Your task to perform on an android device: delete a single message in the gmail app Image 0: 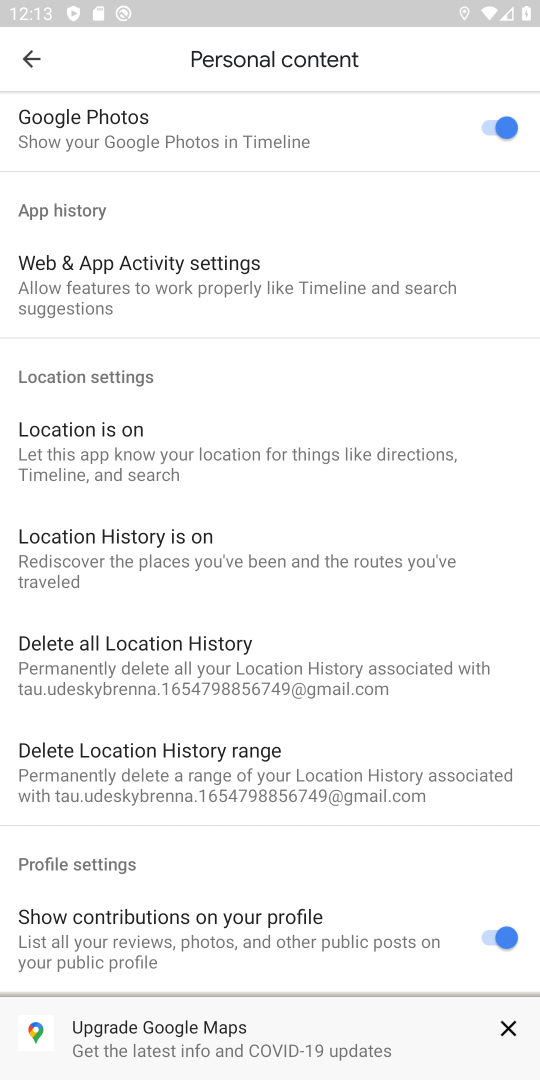
Step 0: press home button
Your task to perform on an android device: delete a single message in the gmail app Image 1: 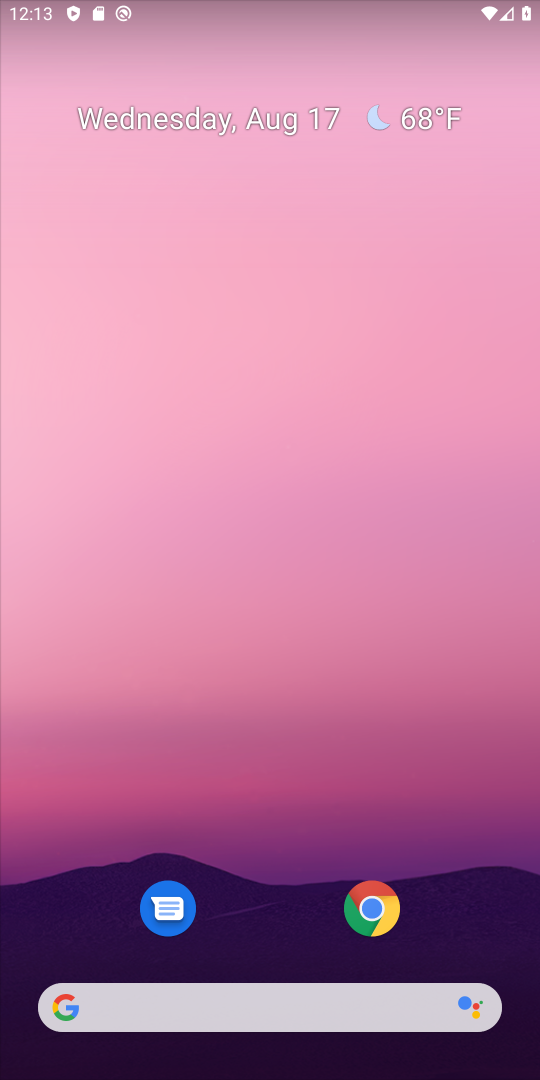
Step 1: drag from (234, 454) to (234, 398)
Your task to perform on an android device: delete a single message in the gmail app Image 2: 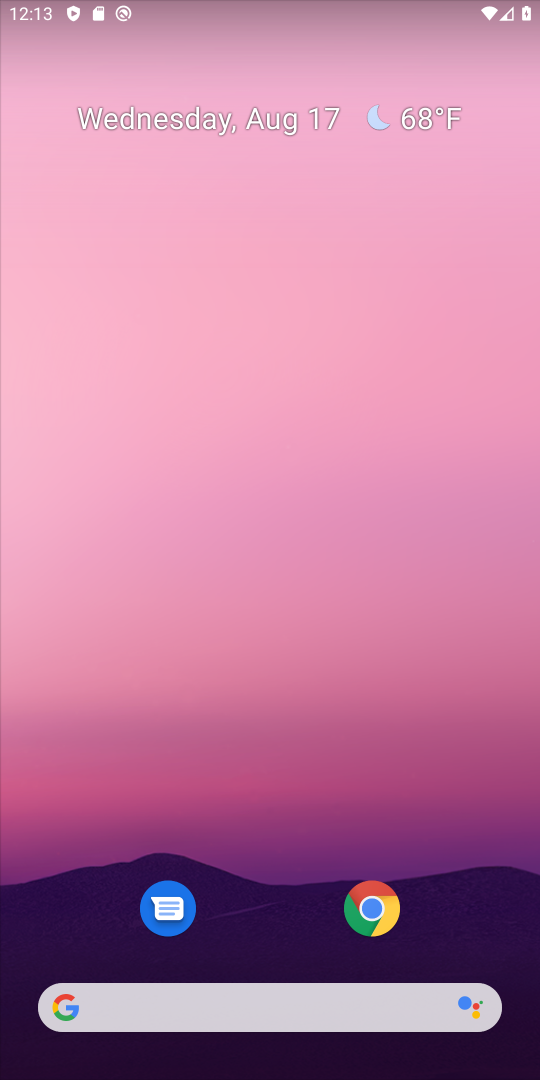
Step 2: drag from (269, 954) to (243, 312)
Your task to perform on an android device: delete a single message in the gmail app Image 3: 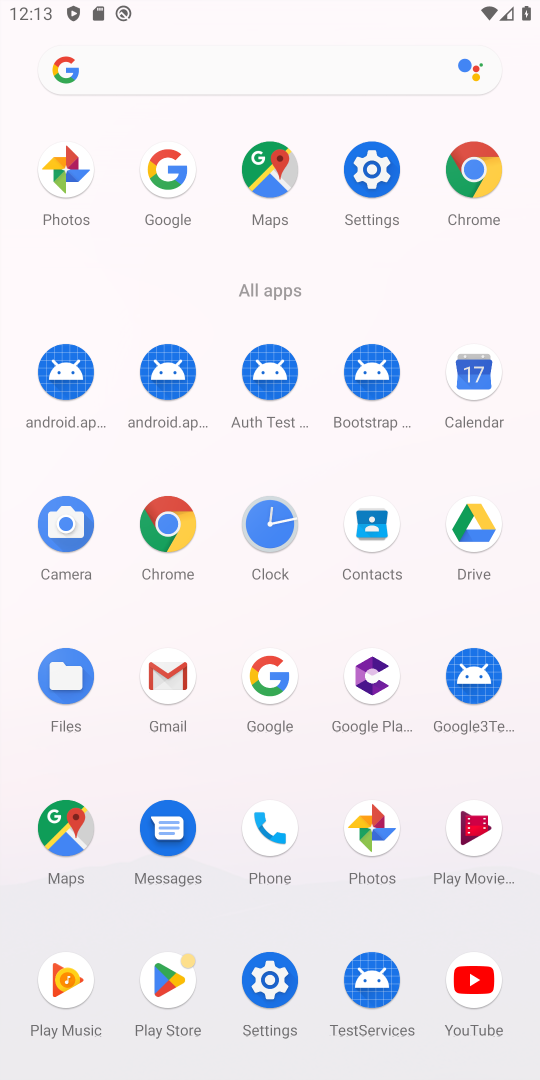
Step 3: click (170, 678)
Your task to perform on an android device: delete a single message in the gmail app Image 4: 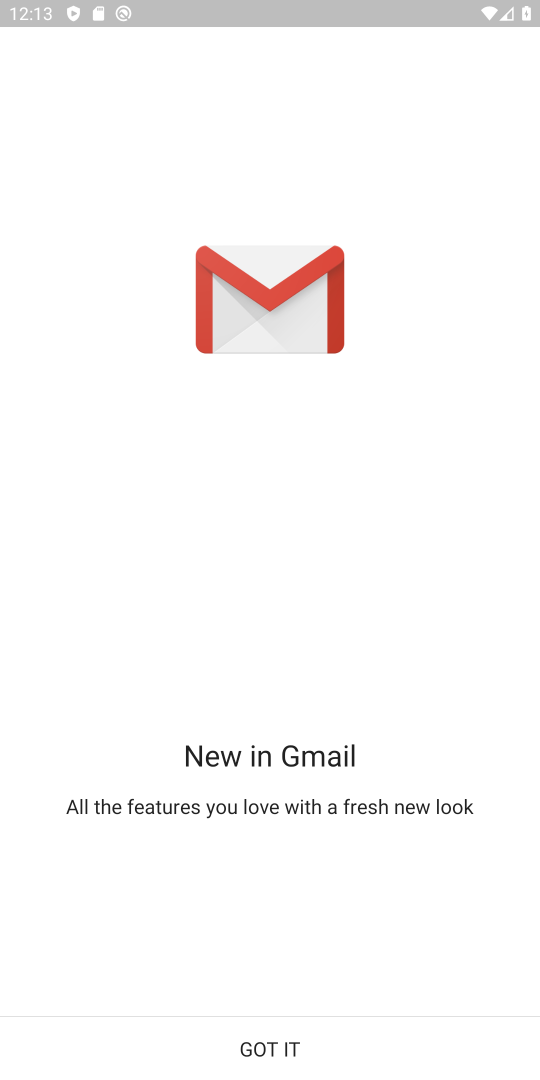
Step 4: click (269, 1026)
Your task to perform on an android device: delete a single message in the gmail app Image 5: 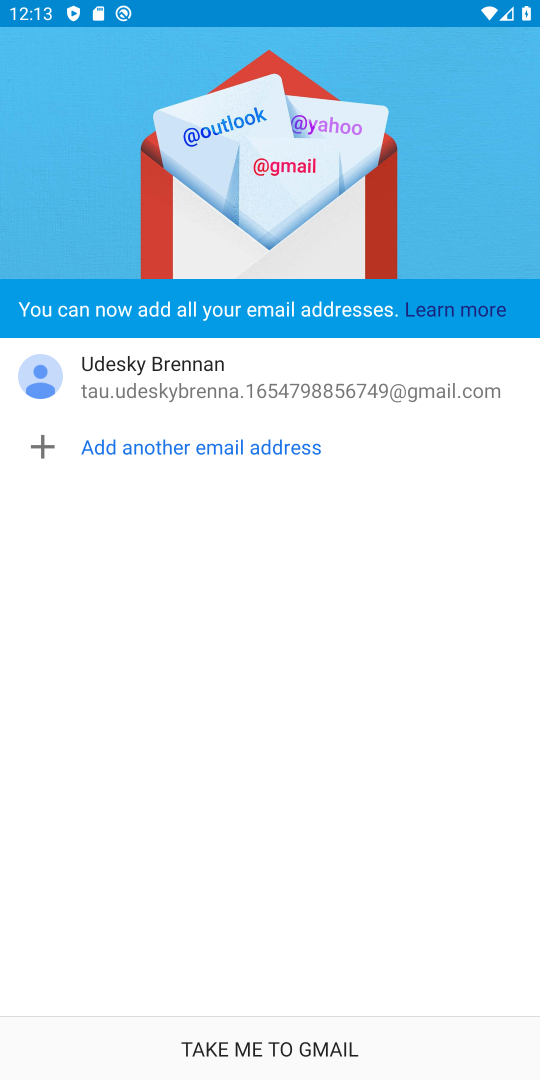
Step 5: click (225, 379)
Your task to perform on an android device: delete a single message in the gmail app Image 6: 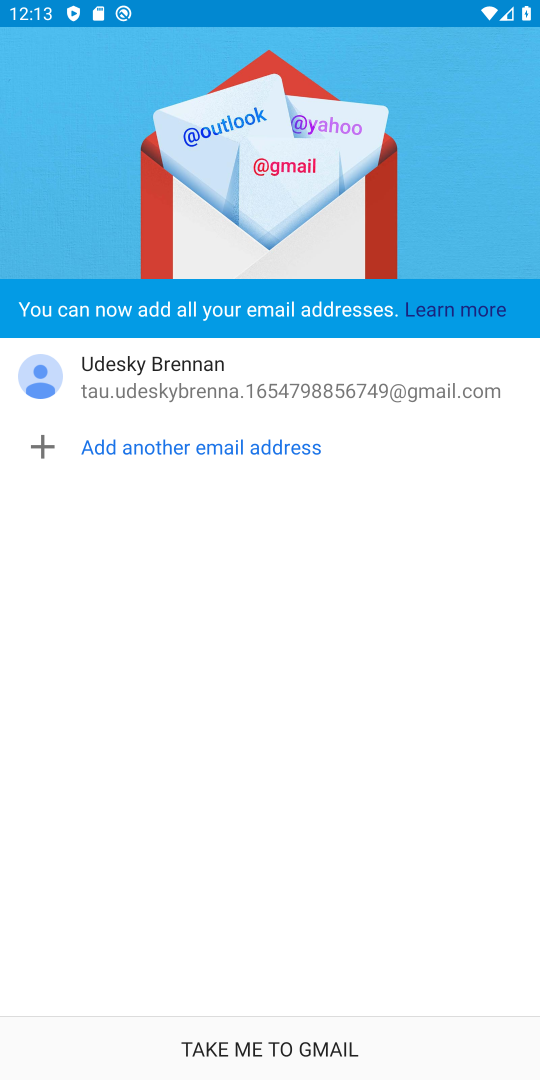
Step 6: click (348, 1031)
Your task to perform on an android device: delete a single message in the gmail app Image 7: 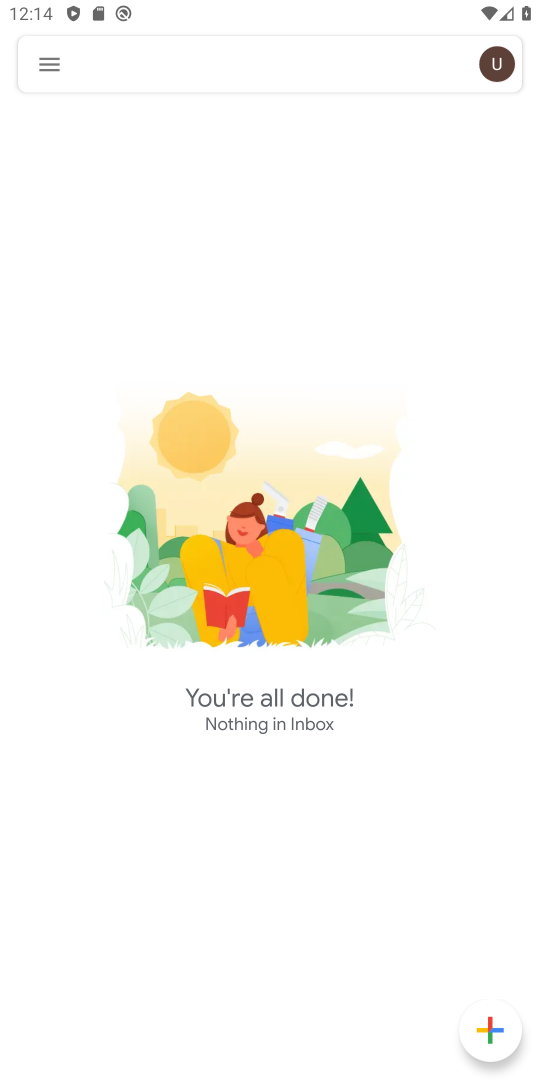
Step 7: click (44, 79)
Your task to perform on an android device: delete a single message in the gmail app Image 8: 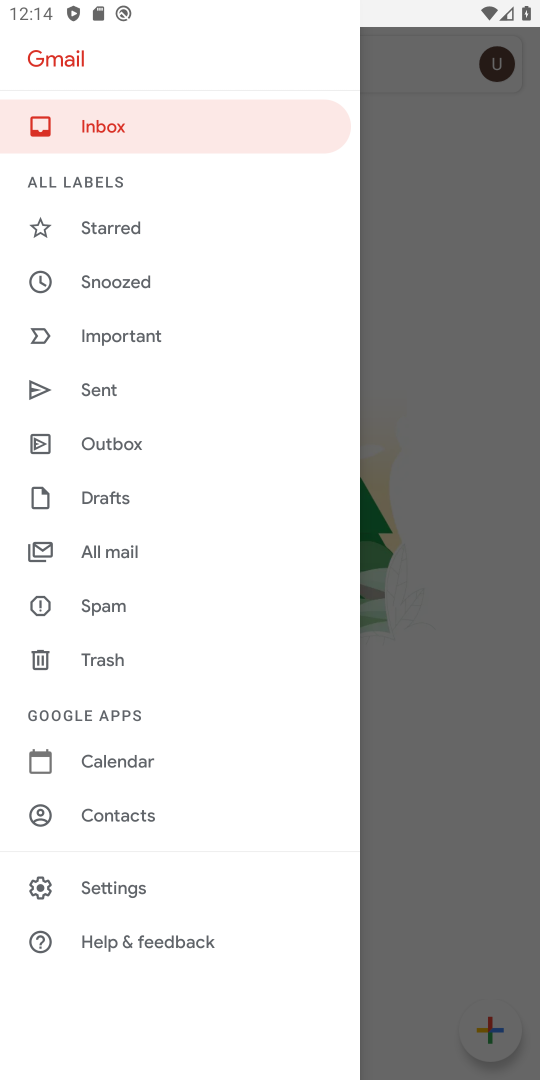
Step 8: click (137, 553)
Your task to perform on an android device: delete a single message in the gmail app Image 9: 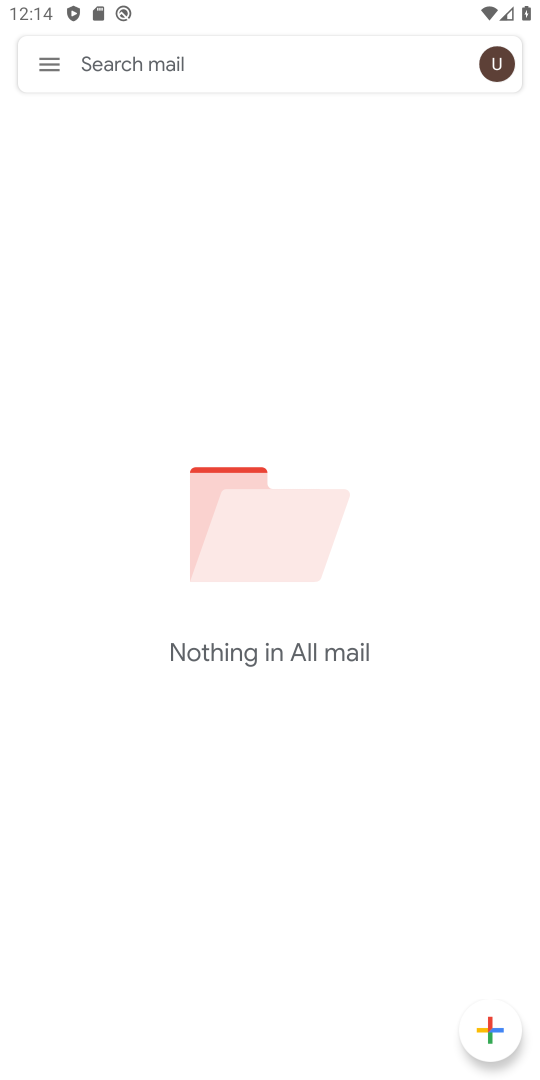
Step 9: task complete